Your task to perform on an android device: toggle pop-ups in chrome Image 0: 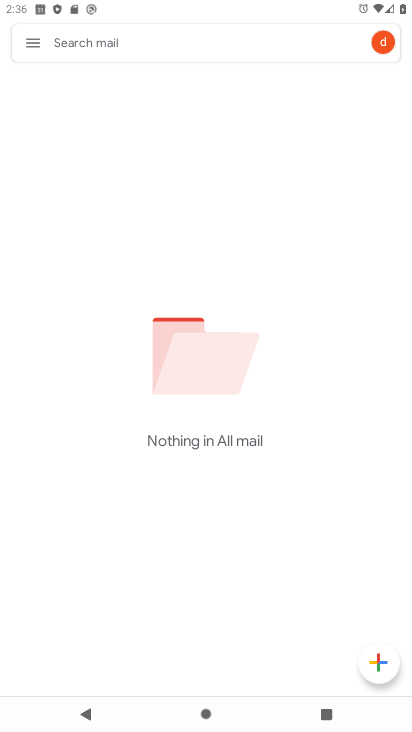
Step 0: press home button
Your task to perform on an android device: toggle pop-ups in chrome Image 1: 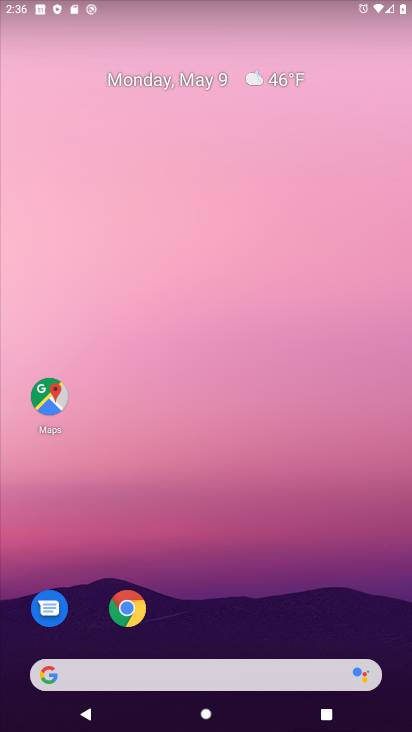
Step 1: click (121, 607)
Your task to perform on an android device: toggle pop-ups in chrome Image 2: 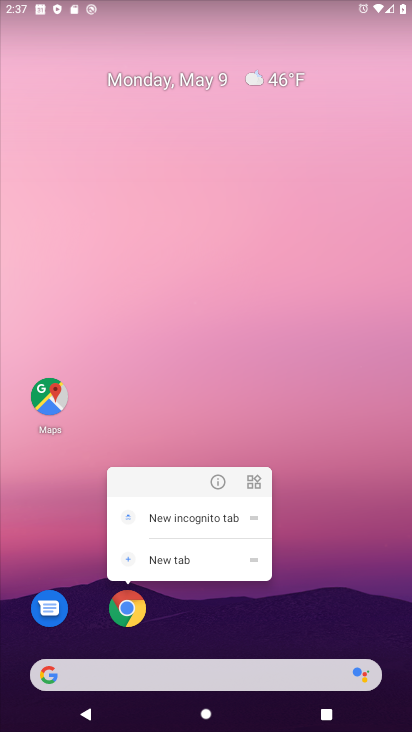
Step 2: click (123, 610)
Your task to perform on an android device: toggle pop-ups in chrome Image 3: 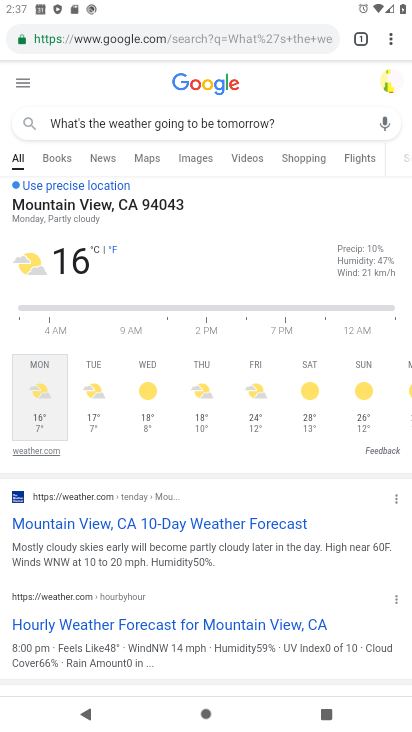
Step 3: click (393, 35)
Your task to perform on an android device: toggle pop-ups in chrome Image 4: 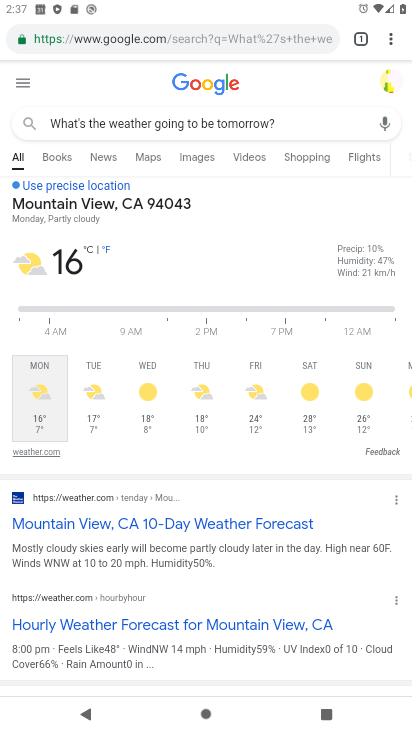
Step 4: click (390, 36)
Your task to perform on an android device: toggle pop-ups in chrome Image 5: 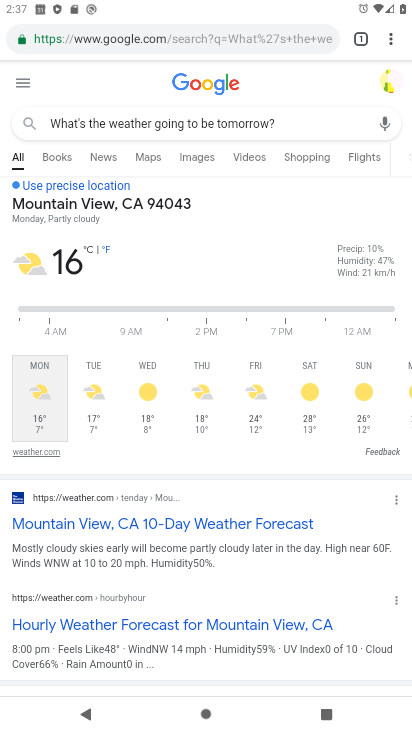
Step 5: click (391, 41)
Your task to perform on an android device: toggle pop-ups in chrome Image 6: 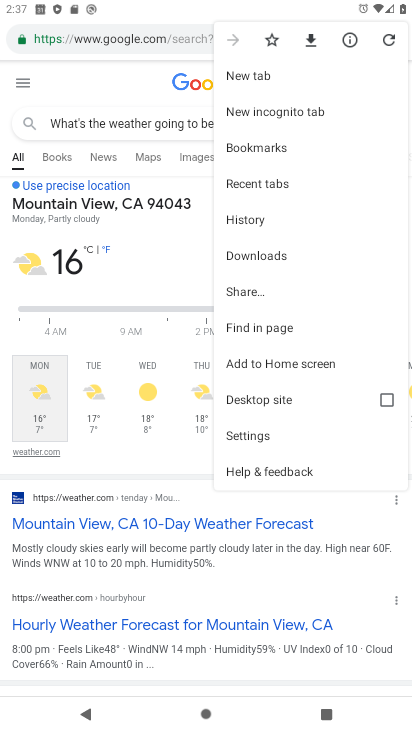
Step 6: click (300, 436)
Your task to perform on an android device: toggle pop-ups in chrome Image 7: 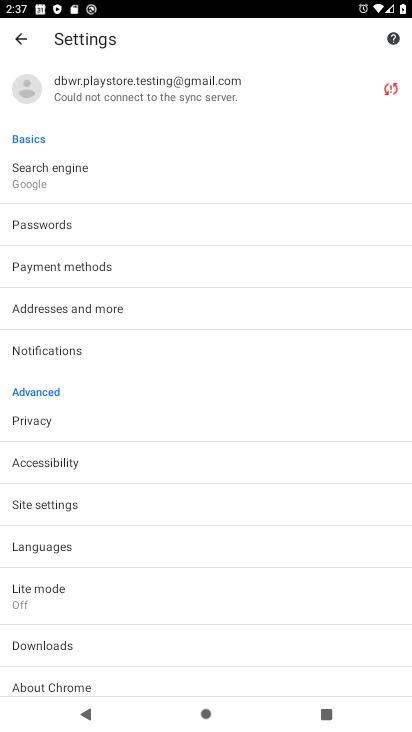
Step 7: click (72, 508)
Your task to perform on an android device: toggle pop-ups in chrome Image 8: 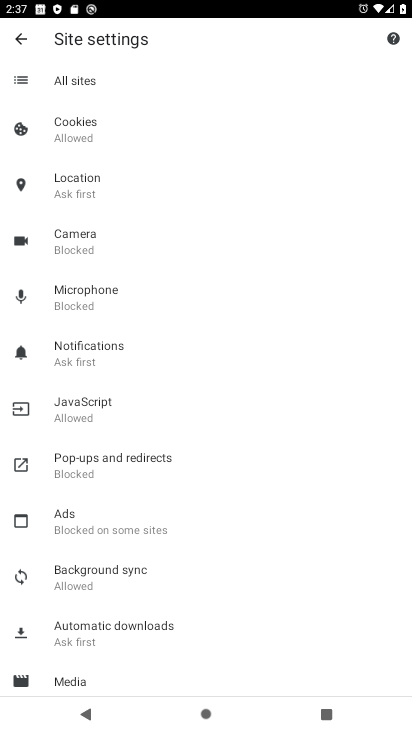
Step 8: click (130, 470)
Your task to perform on an android device: toggle pop-ups in chrome Image 9: 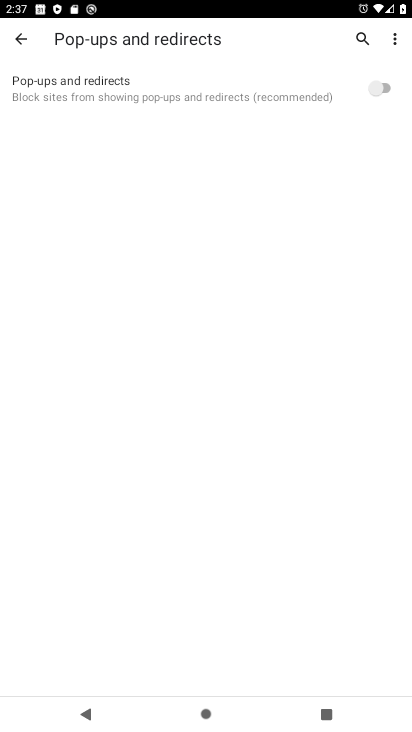
Step 9: click (380, 89)
Your task to perform on an android device: toggle pop-ups in chrome Image 10: 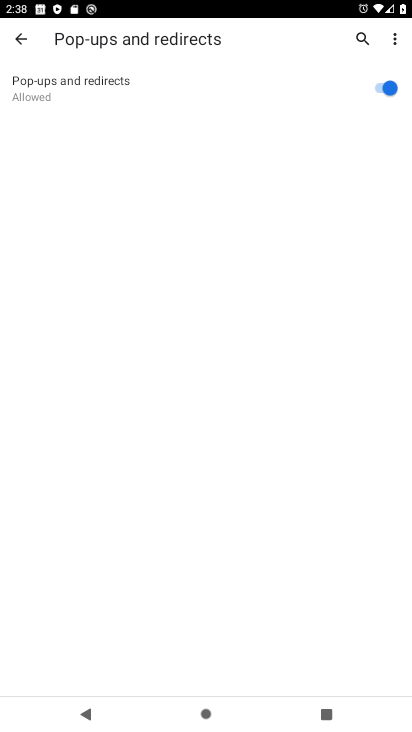
Step 10: task complete